Your task to perform on an android device: Turn off the flashlight Image 0: 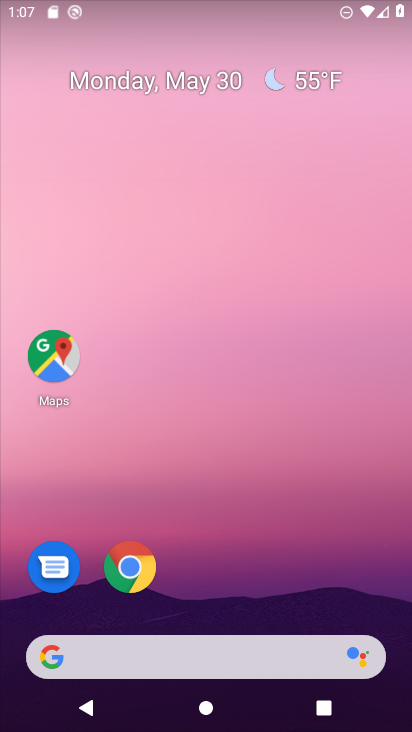
Step 0: drag from (208, 608) to (195, 47)
Your task to perform on an android device: Turn off the flashlight Image 1: 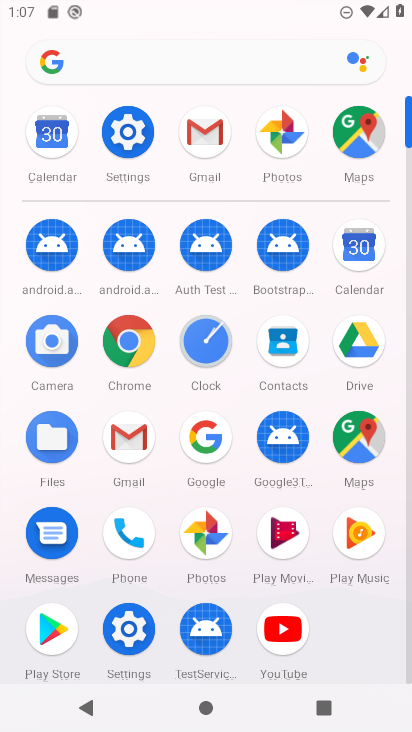
Step 1: click (124, 126)
Your task to perform on an android device: Turn off the flashlight Image 2: 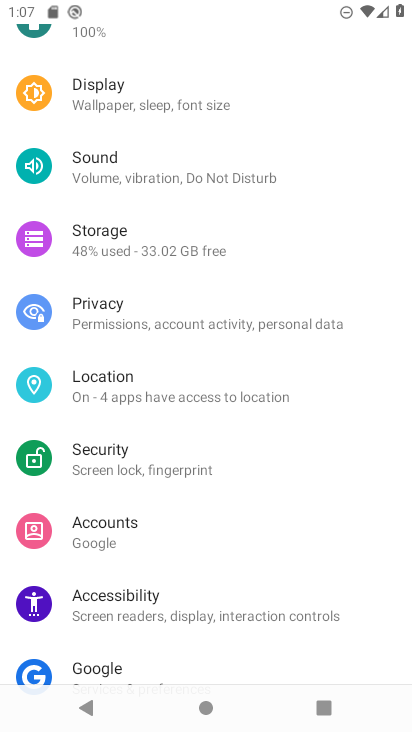
Step 2: drag from (160, 100) to (202, 671)
Your task to perform on an android device: Turn off the flashlight Image 3: 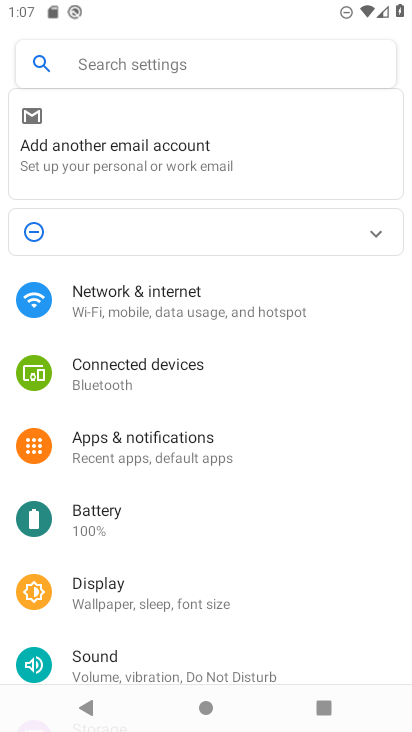
Step 3: click (153, 59)
Your task to perform on an android device: Turn off the flashlight Image 4: 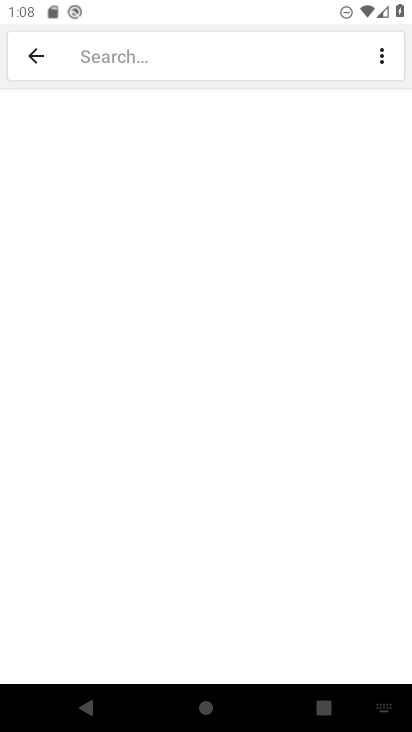
Step 4: type "flashlight"
Your task to perform on an android device: Turn off the flashlight Image 5: 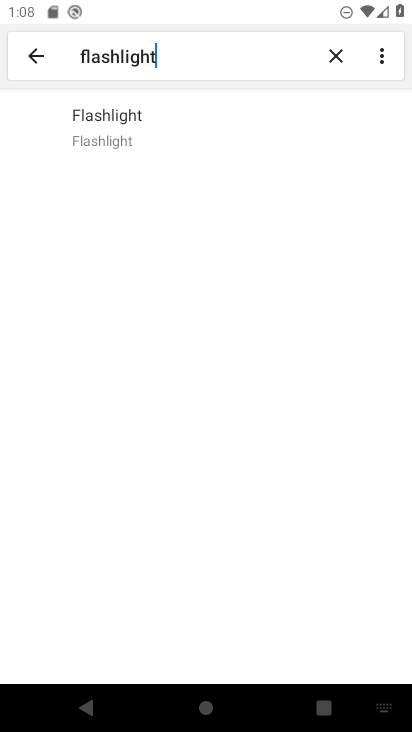
Step 5: click (142, 125)
Your task to perform on an android device: Turn off the flashlight Image 6: 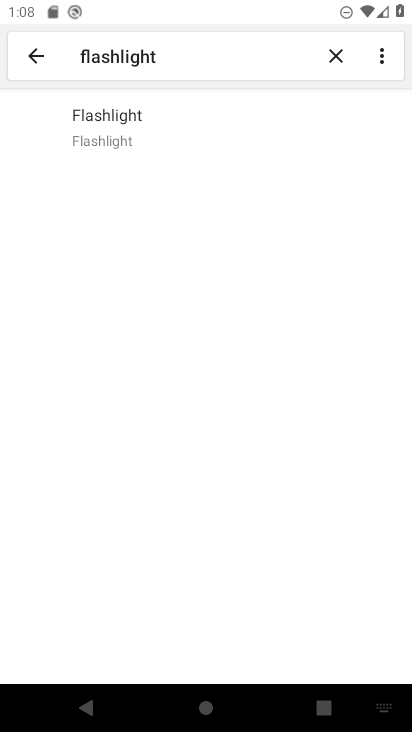
Step 6: click (142, 125)
Your task to perform on an android device: Turn off the flashlight Image 7: 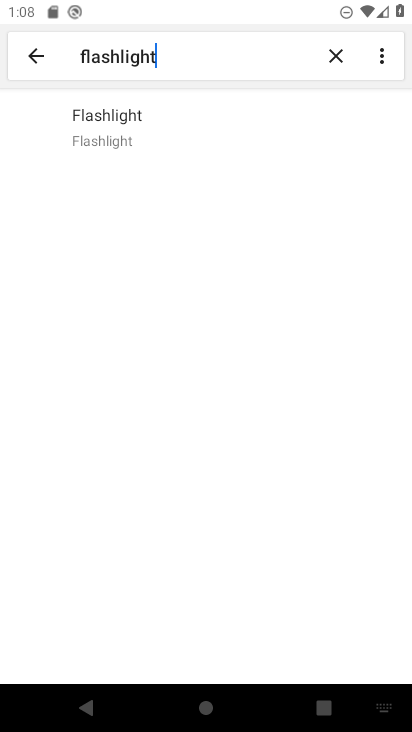
Step 7: task complete